Your task to perform on an android device: Open privacy settings Image 0: 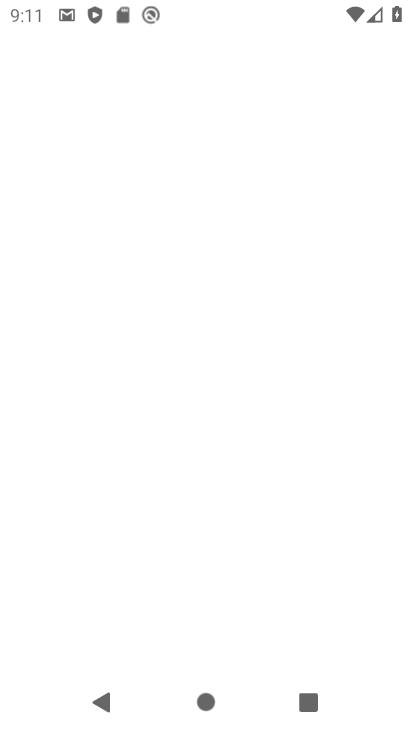
Step 0: press home button
Your task to perform on an android device: Open privacy settings Image 1: 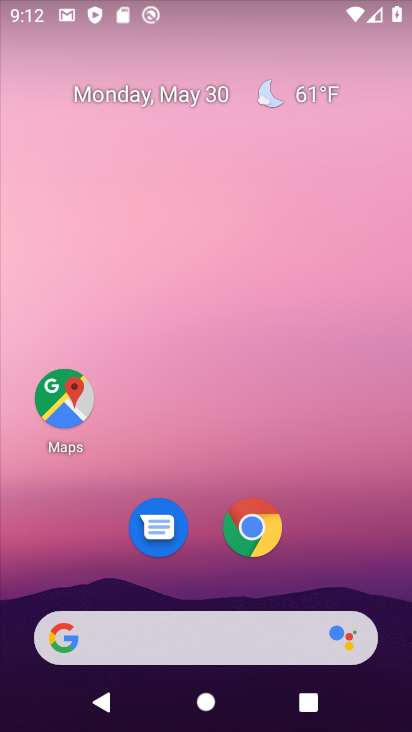
Step 1: drag from (364, 596) to (367, 2)
Your task to perform on an android device: Open privacy settings Image 2: 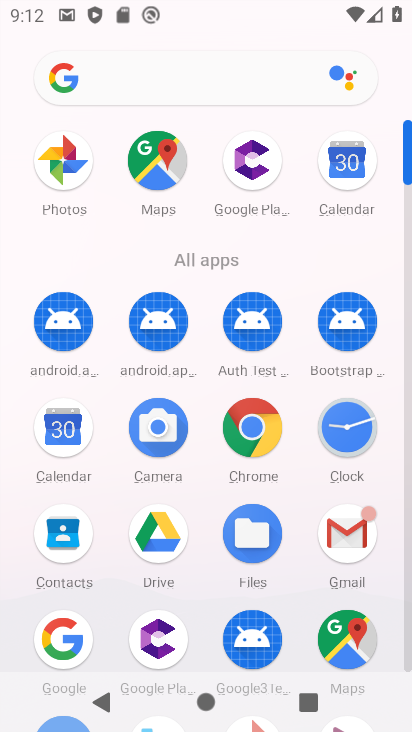
Step 2: drag from (309, 581) to (291, 66)
Your task to perform on an android device: Open privacy settings Image 3: 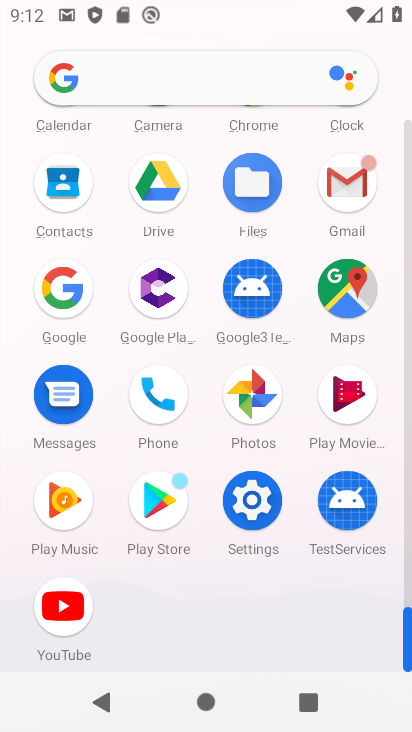
Step 3: click (255, 509)
Your task to perform on an android device: Open privacy settings Image 4: 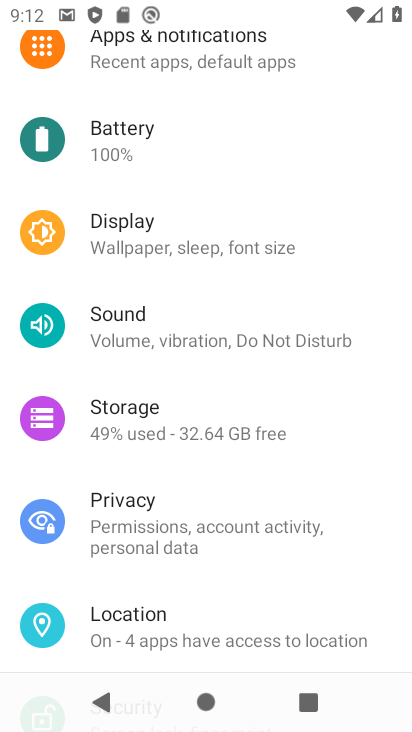
Step 4: click (156, 521)
Your task to perform on an android device: Open privacy settings Image 5: 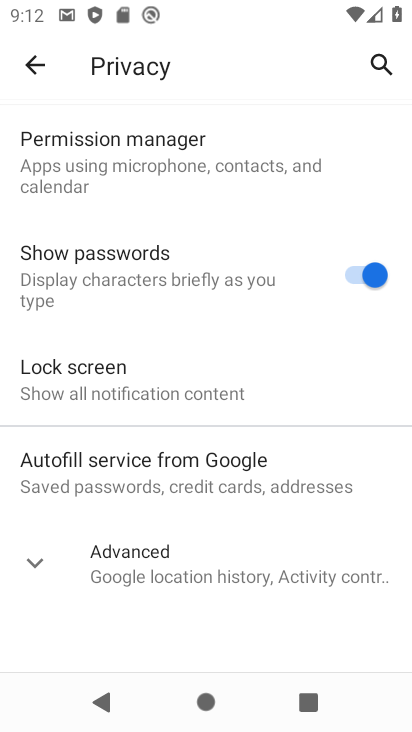
Step 5: task complete